Your task to perform on an android device: open app "Yahoo Mail" Image 0: 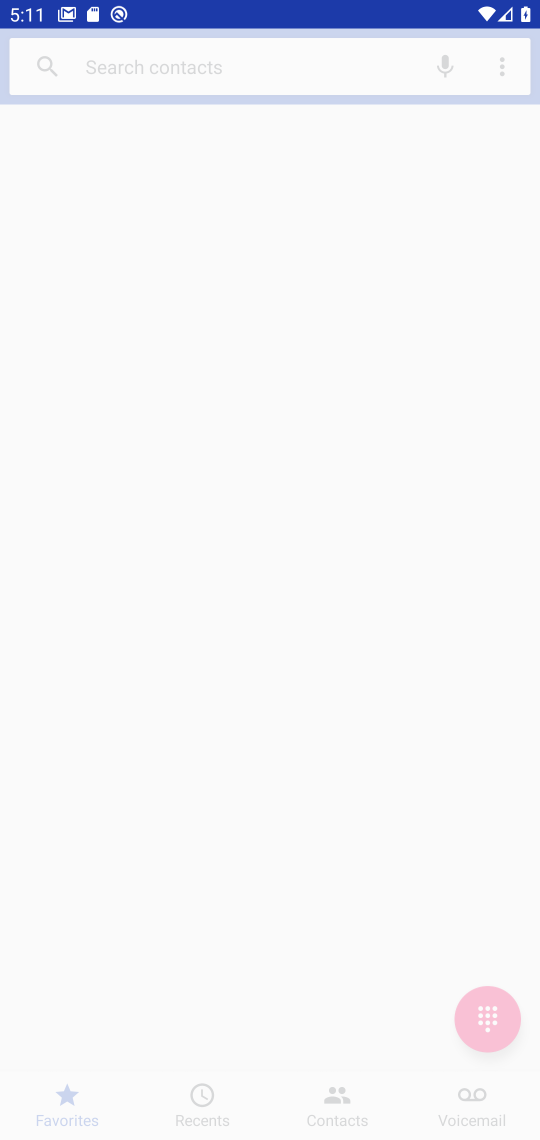
Step 0: press home button
Your task to perform on an android device: open app "Yahoo Mail" Image 1: 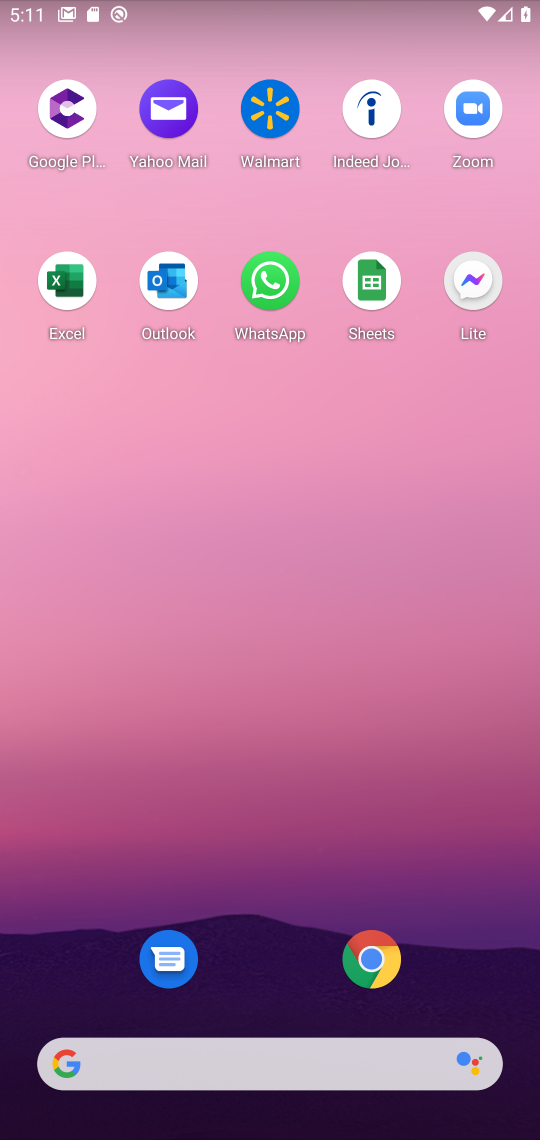
Step 1: drag from (361, 894) to (451, 158)
Your task to perform on an android device: open app "Yahoo Mail" Image 2: 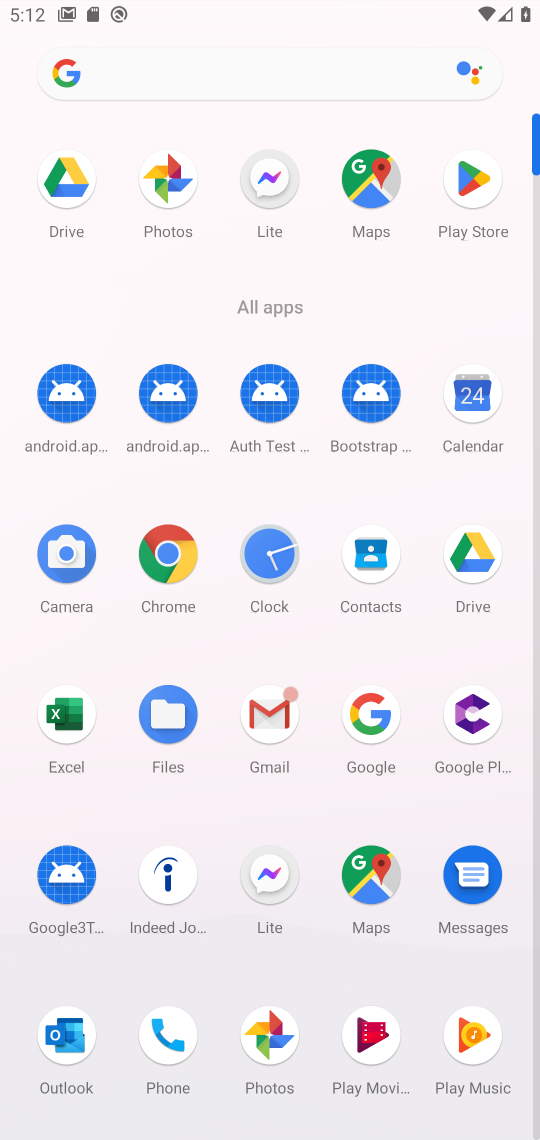
Step 2: click (459, 174)
Your task to perform on an android device: open app "Yahoo Mail" Image 3: 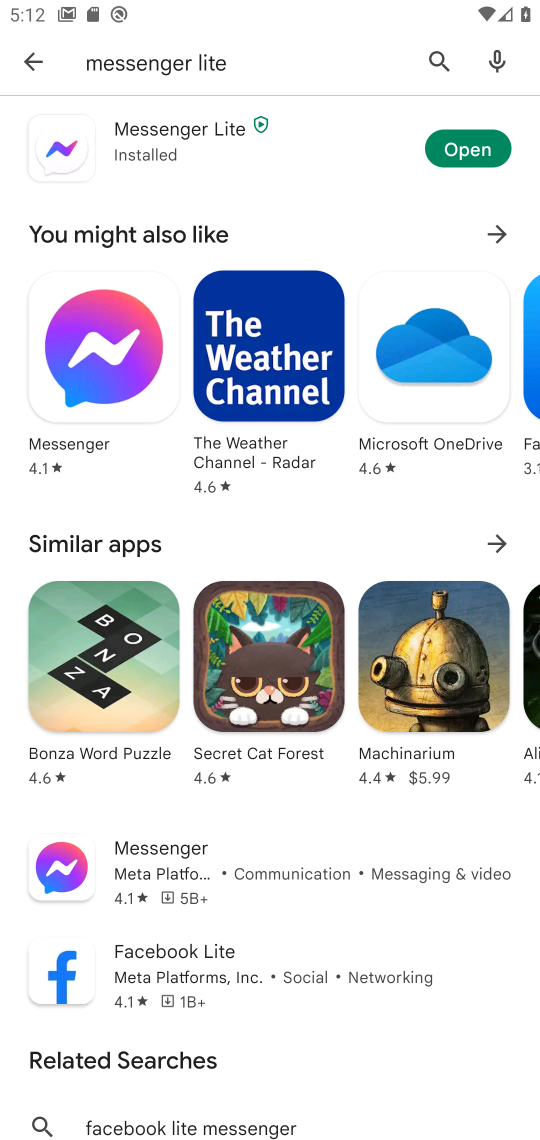
Step 3: click (449, 74)
Your task to perform on an android device: open app "Yahoo Mail" Image 4: 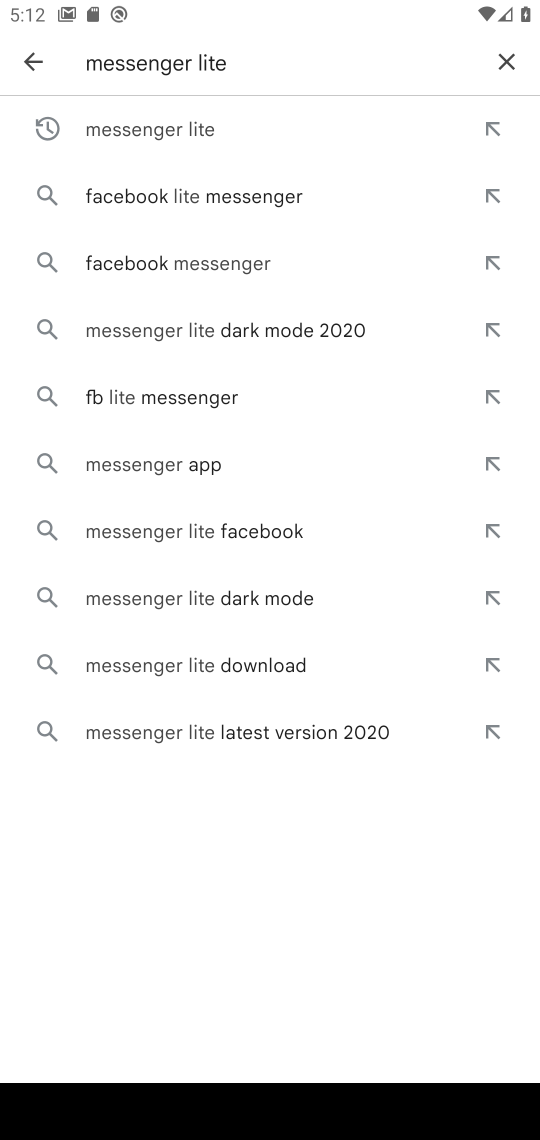
Step 4: click (517, 52)
Your task to perform on an android device: open app "Yahoo Mail" Image 5: 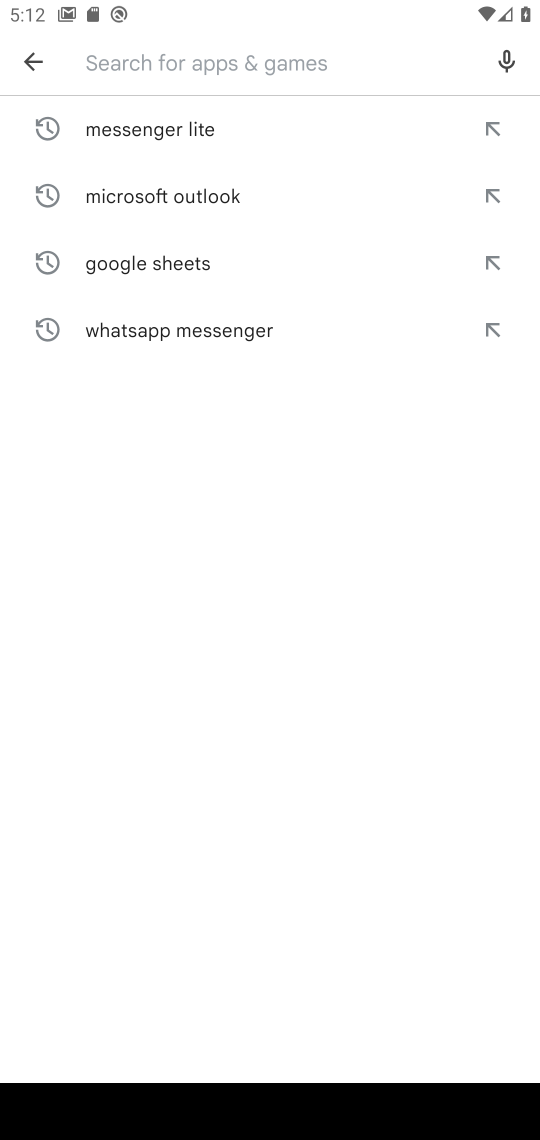
Step 5: type "Yahoo Mail"
Your task to perform on an android device: open app "Yahoo Mail" Image 6: 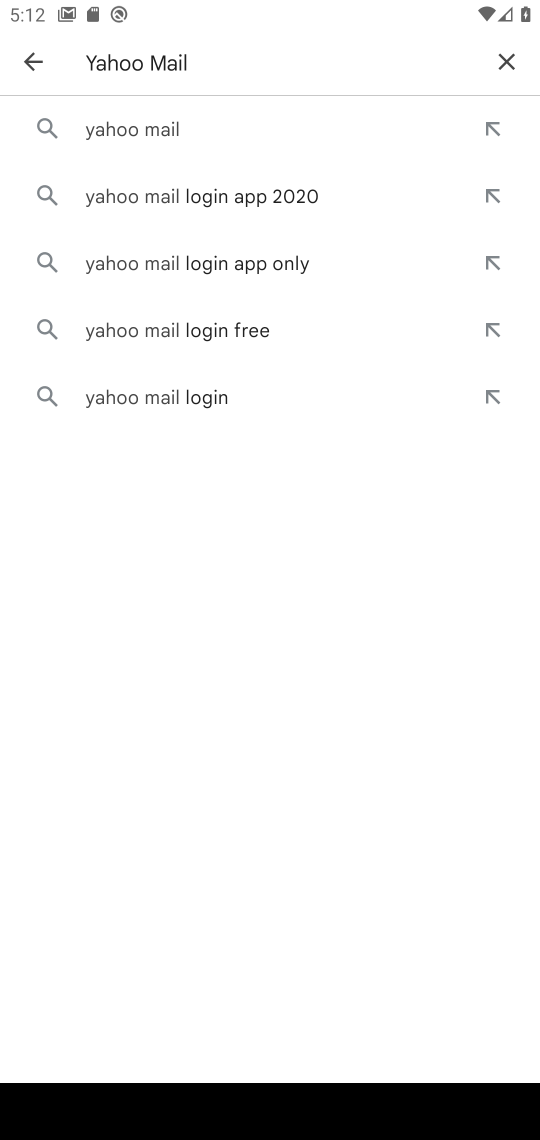
Step 6: click (116, 120)
Your task to perform on an android device: open app "Yahoo Mail" Image 7: 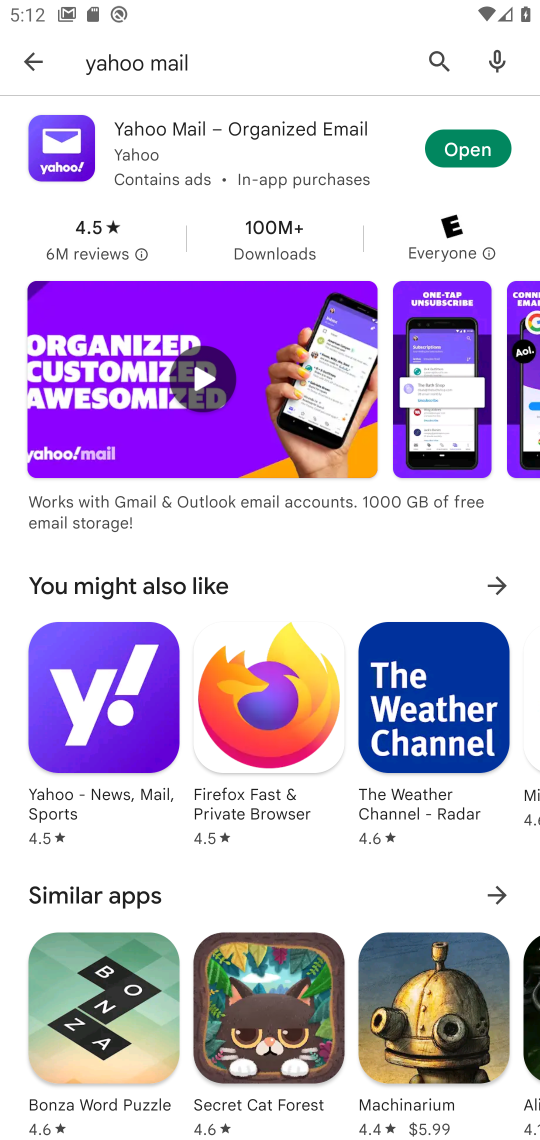
Step 7: click (448, 141)
Your task to perform on an android device: open app "Yahoo Mail" Image 8: 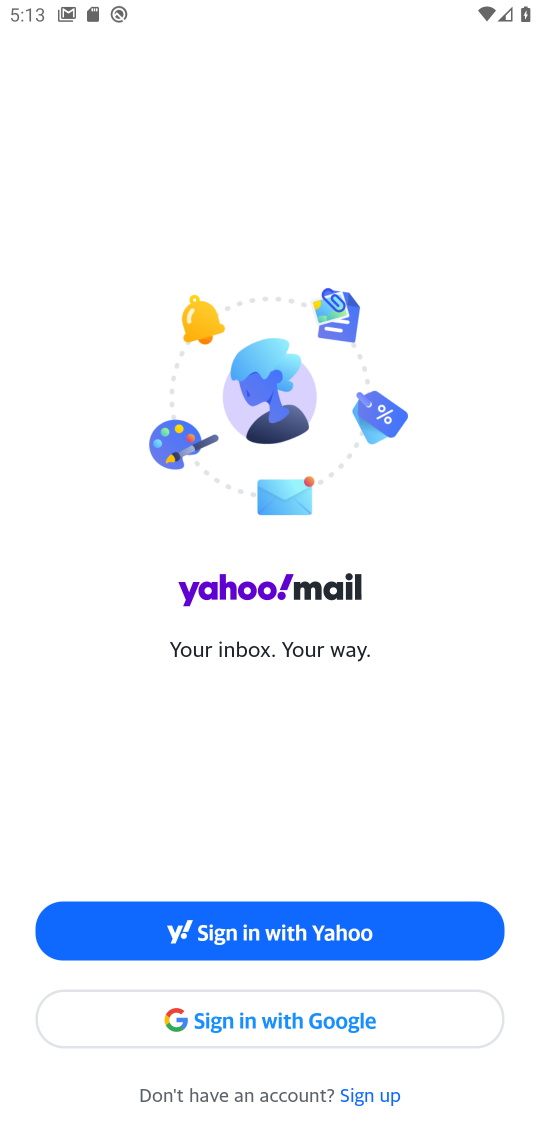
Step 8: task complete